Your task to perform on an android device: Turn off the flashlight Image 0: 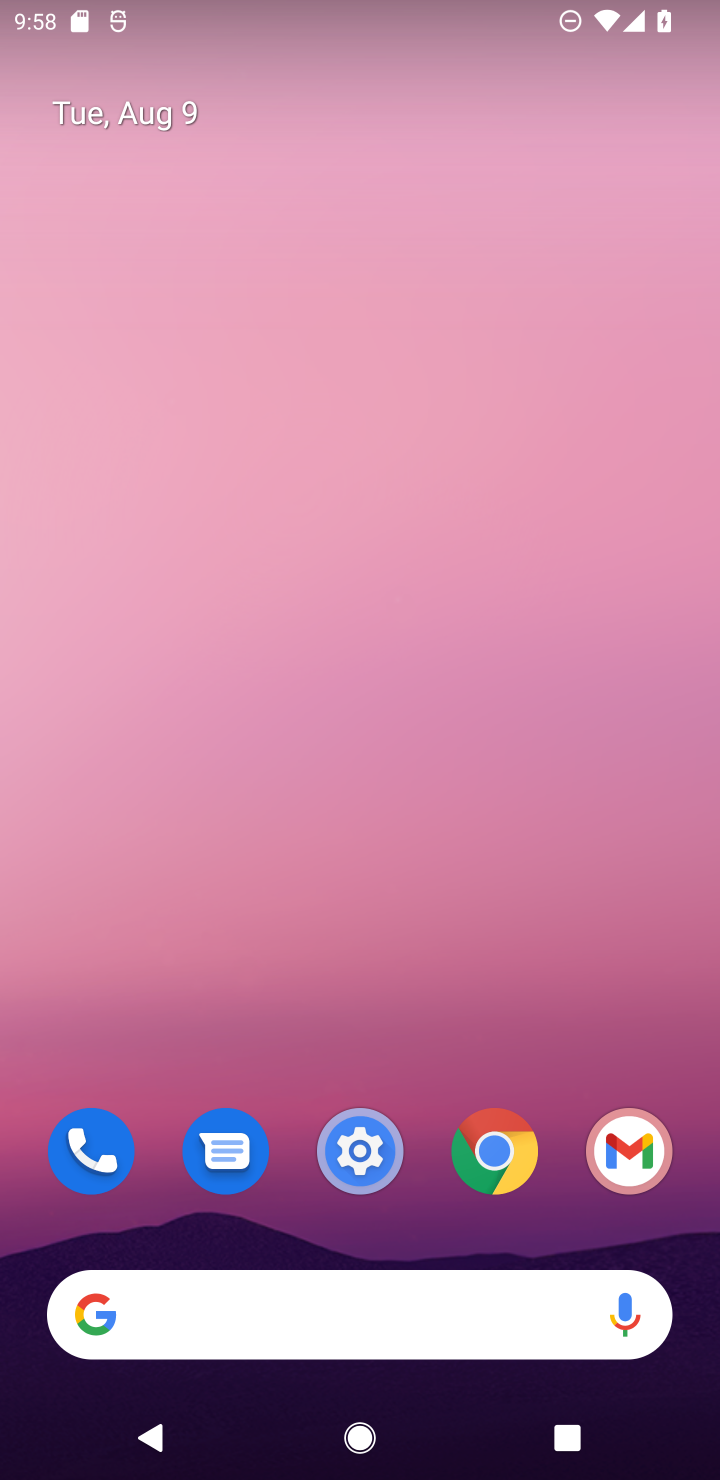
Step 0: drag from (213, 24) to (238, 1379)
Your task to perform on an android device: Turn off the flashlight Image 1: 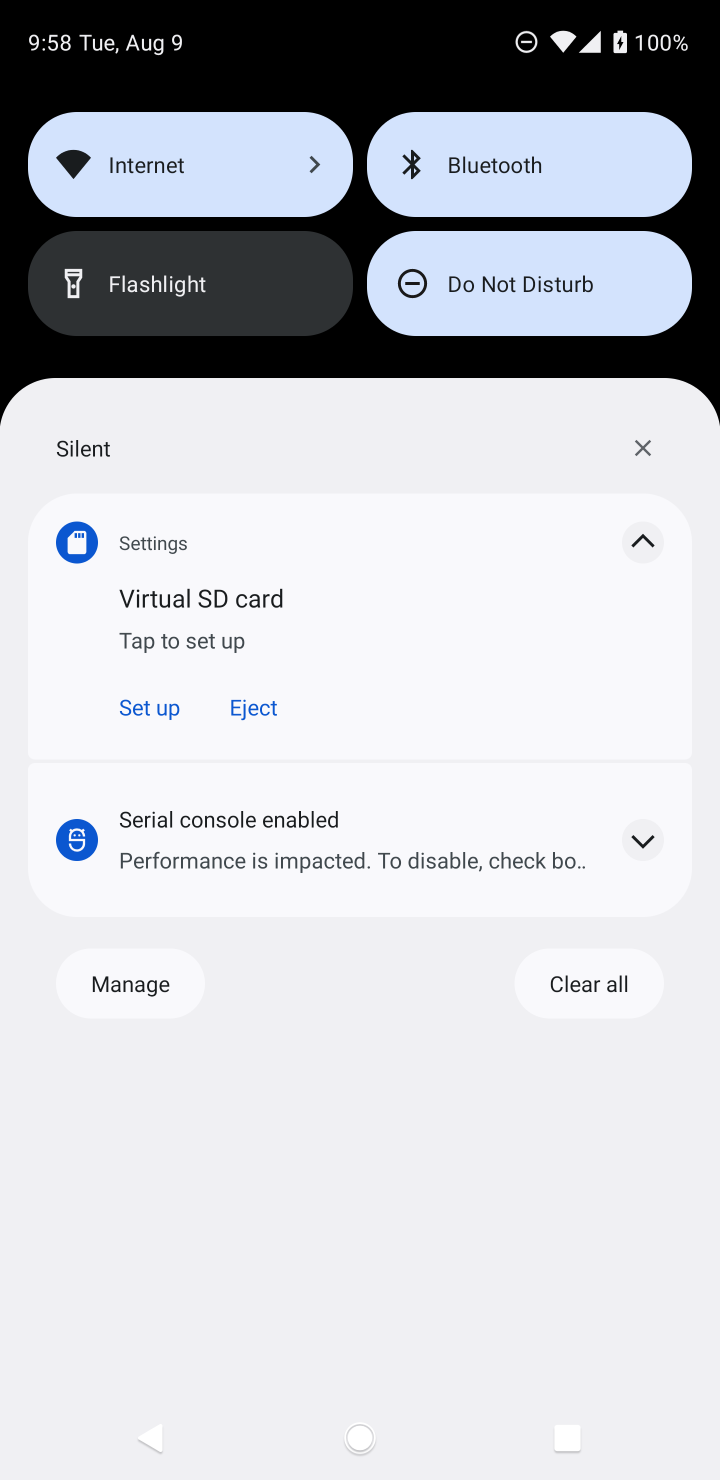
Step 1: click (150, 330)
Your task to perform on an android device: Turn off the flashlight Image 2: 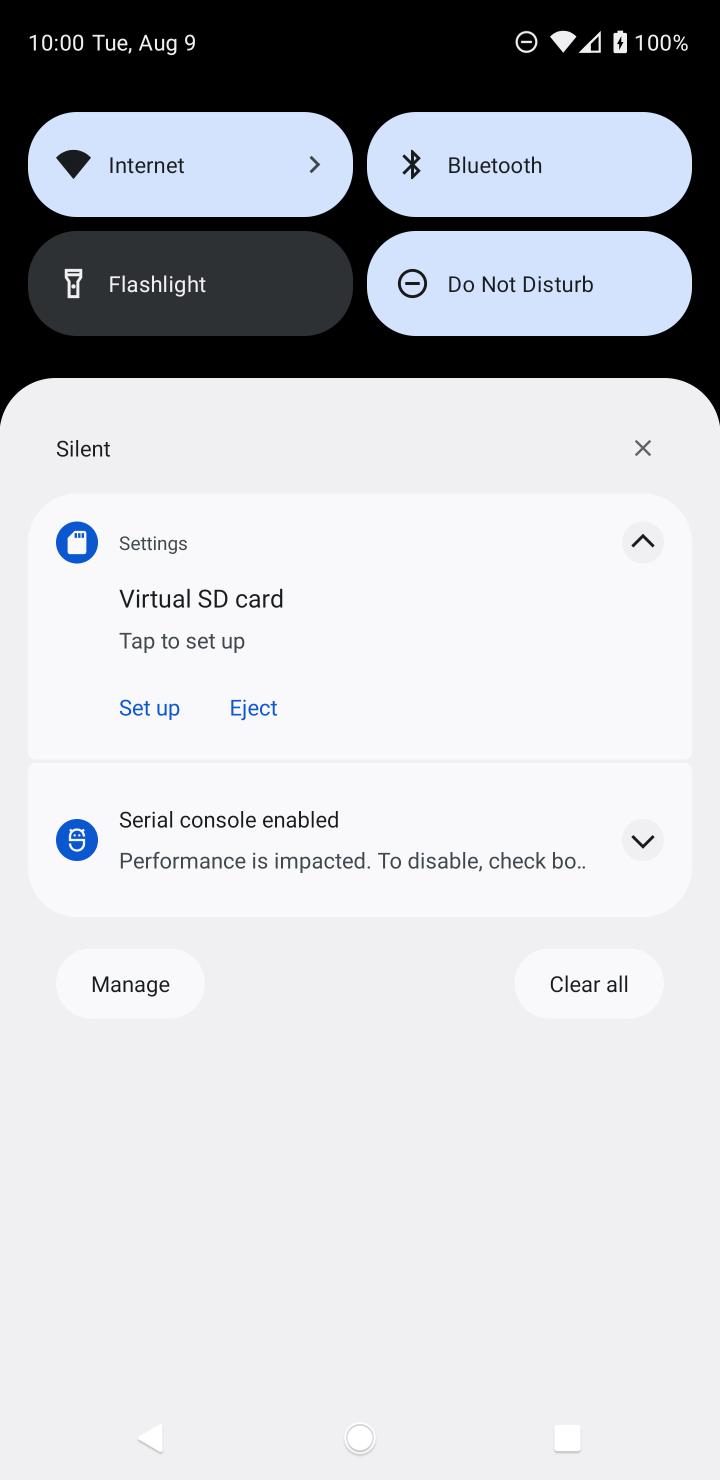
Step 2: task complete